Your task to perform on an android device: Turn on the flashlight Image 0: 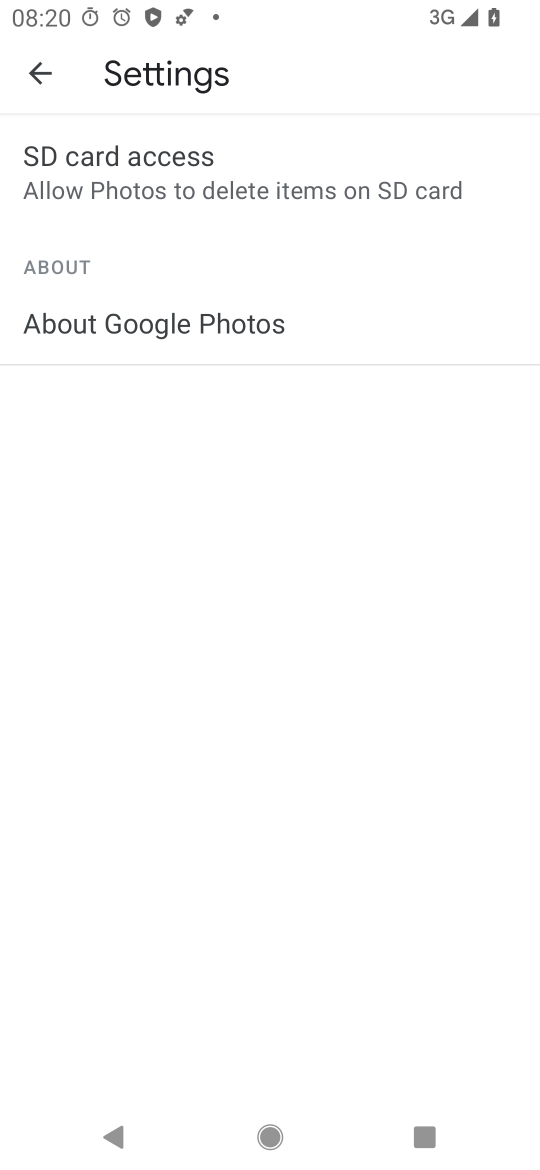
Step 0: press home button
Your task to perform on an android device: Turn on the flashlight Image 1: 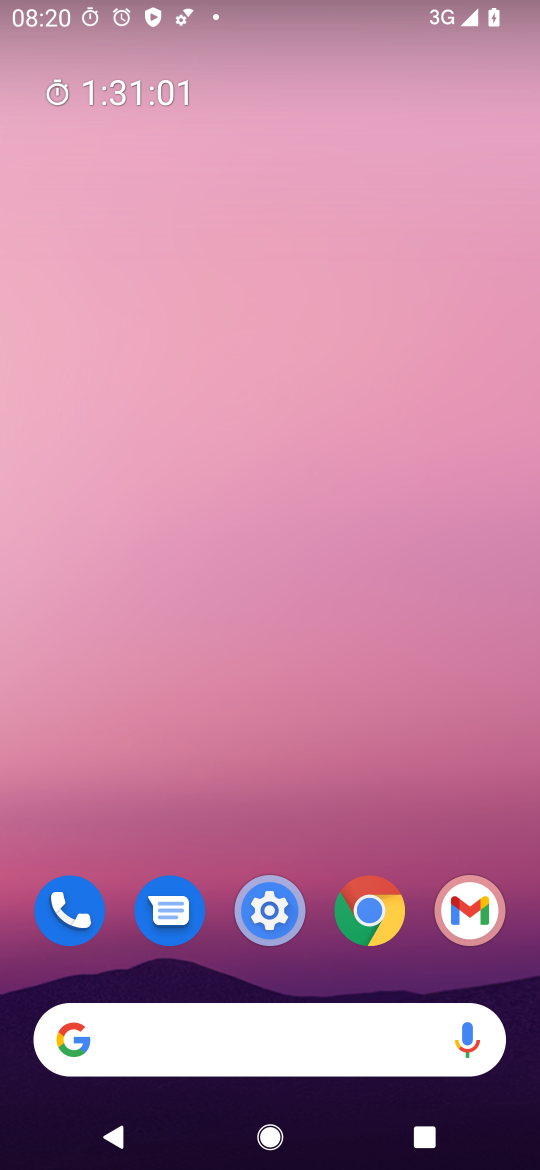
Step 1: drag from (265, 113) to (296, 1004)
Your task to perform on an android device: Turn on the flashlight Image 2: 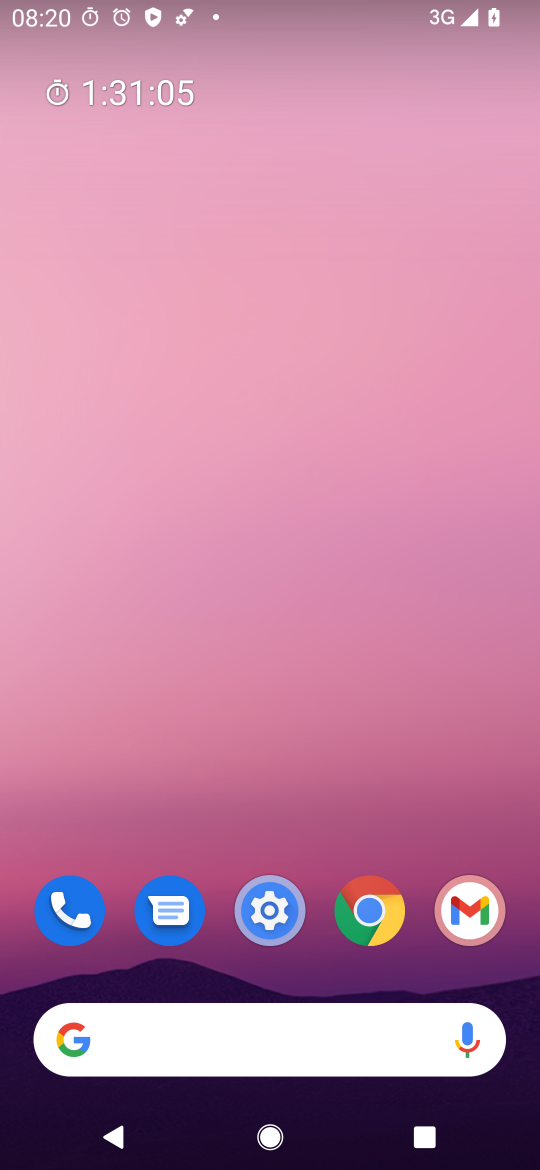
Step 2: drag from (300, 289) to (306, 811)
Your task to perform on an android device: Turn on the flashlight Image 3: 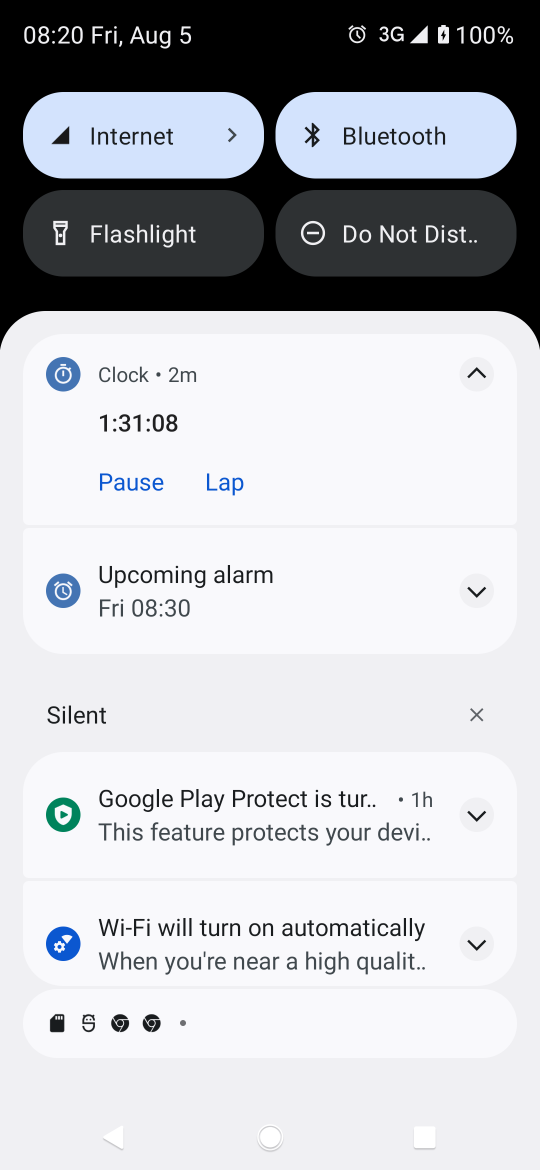
Step 3: click (165, 239)
Your task to perform on an android device: Turn on the flashlight Image 4: 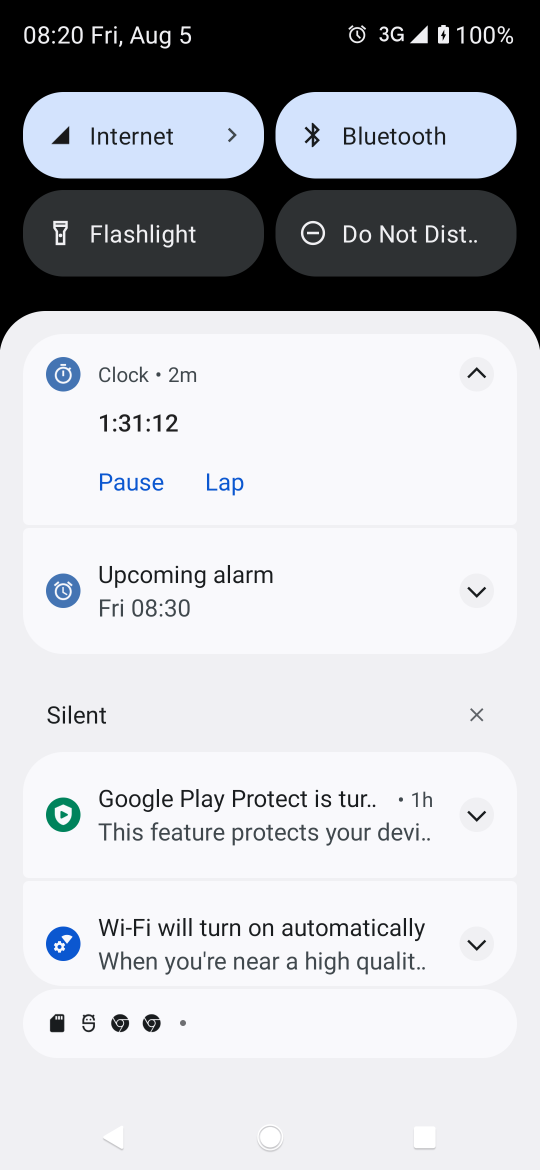
Step 4: task complete